Your task to perform on an android device: open wifi settings Image 0: 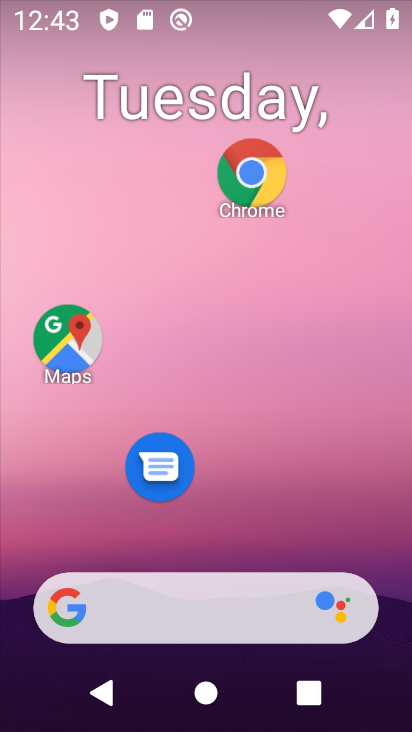
Step 0: drag from (275, 489) to (266, 0)
Your task to perform on an android device: open wifi settings Image 1: 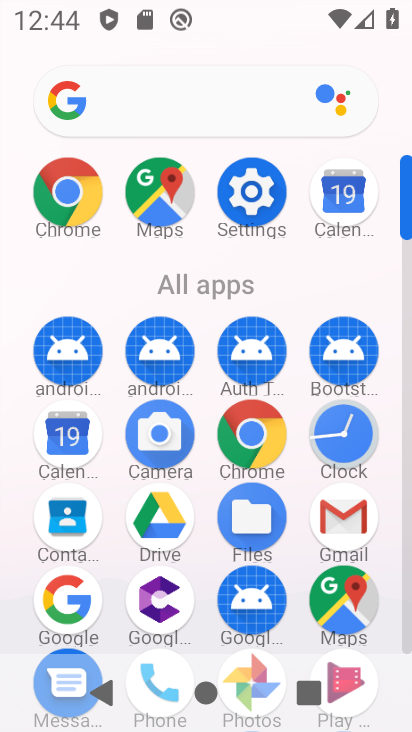
Step 1: click (251, 196)
Your task to perform on an android device: open wifi settings Image 2: 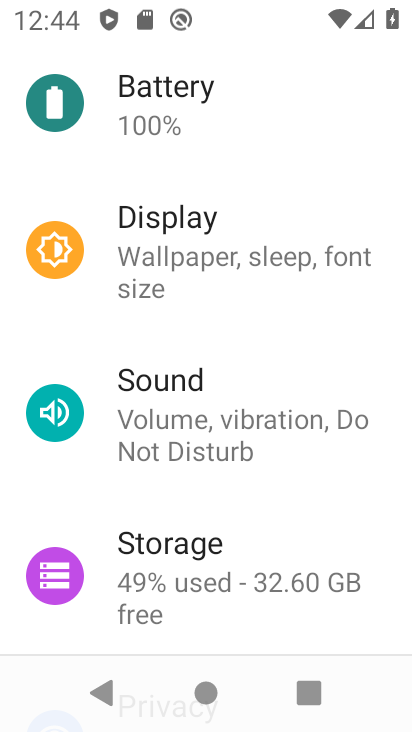
Step 2: drag from (272, 330) to (266, 544)
Your task to perform on an android device: open wifi settings Image 3: 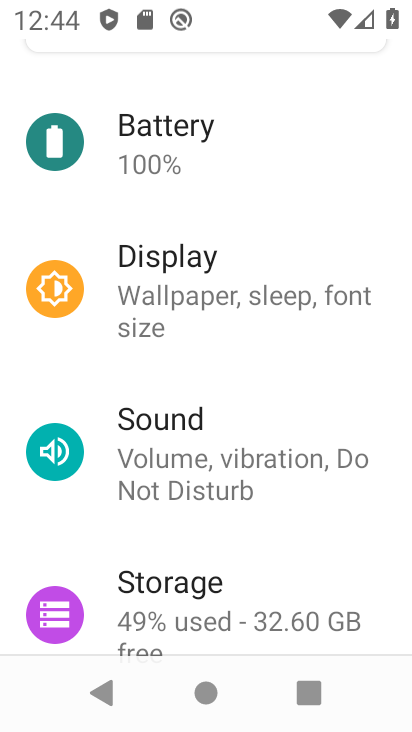
Step 3: drag from (292, 225) to (323, 584)
Your task to perform on an android device: open wifi settings Image 4: 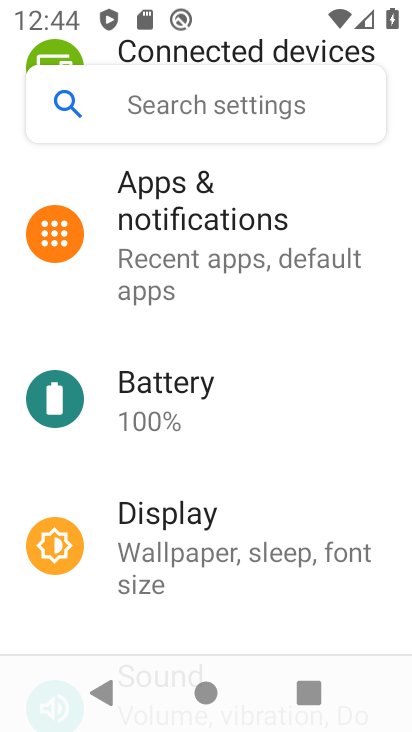
Step 4: drag from (338, 232) to (335, 646)
Your task to perform on an android device: open wifi settings Image 5: 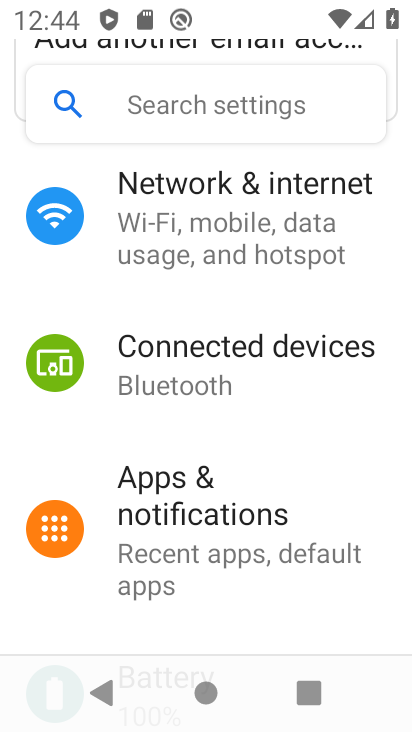
Step 5: click (248, 230)
Your task to perform on an android device: open wifi settings Image 6: 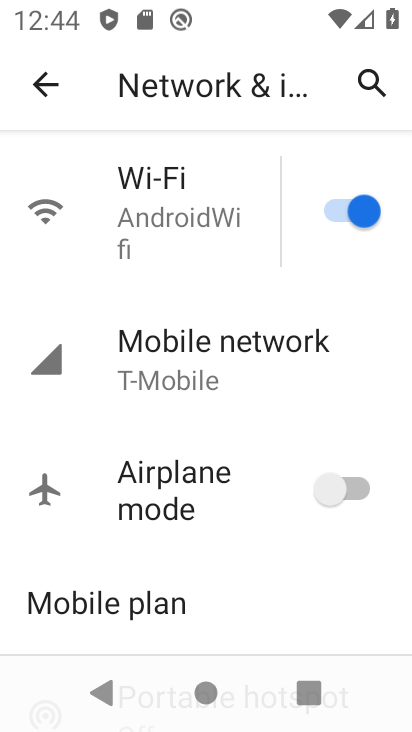
Step 6: click (126, 224)
Your task to perform on an android device: open wifi settings Image 7: 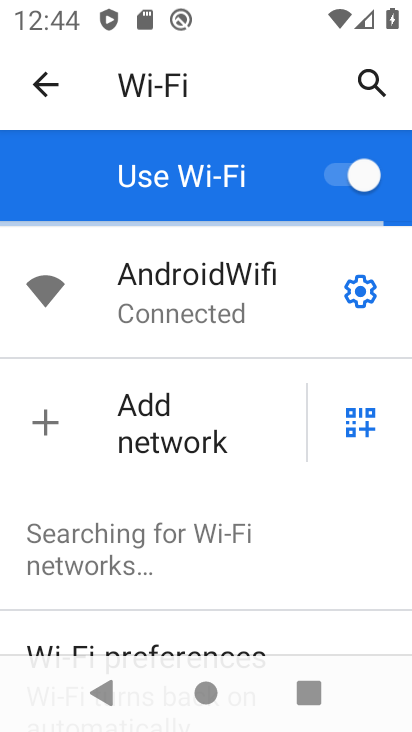
Step 7: task complete